Your task to perform on an android device: What is the recent news? Image 0: 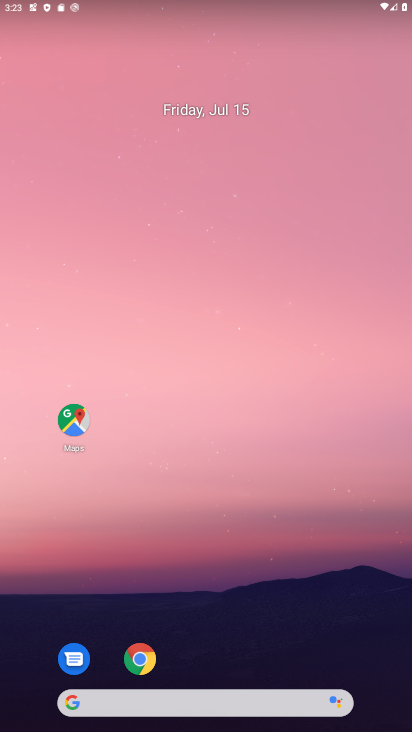
Step 0: click (237, 272)
Your task to perform on an android device: What is the recent news? Image 1: 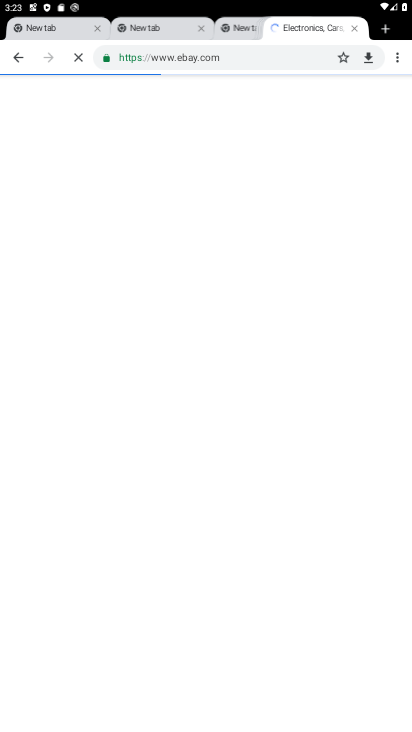
Step 1: press home button
Your task to perform on an android device: What is the recent news? Image 2: 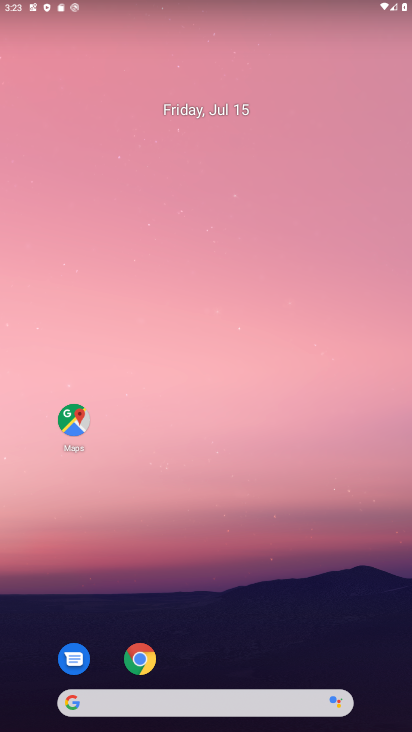
Step 2: drag from (211, 700) to (208, 348)
Your task to perform on an android device: What is the recent news? Image 3: 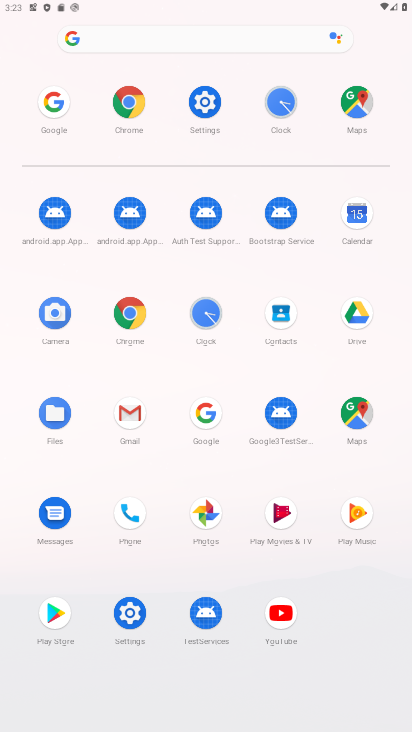
Step 3: click (55, 93)
Your task to perform on an android device: What is the recent news? Image 4: 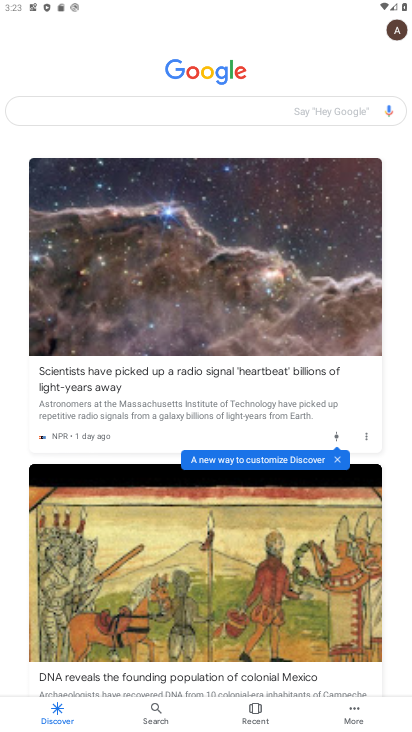
Step 4: click (117, 112)
Your task to perform on an android device: What is the recent news? Image 5: 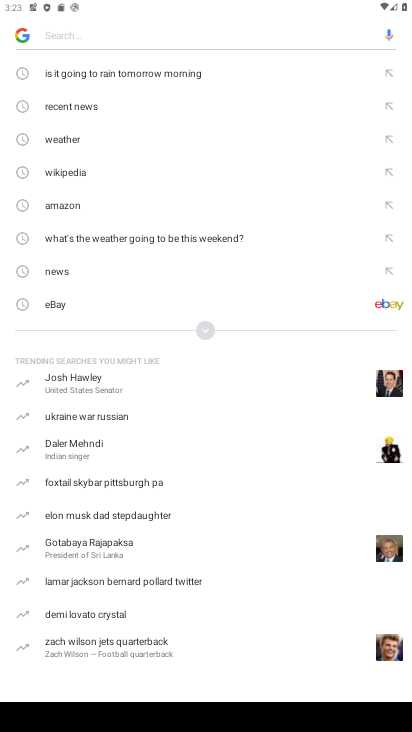
Step 5: click (56, 267)
Your task to perform on an android device: What is the recent news? Image 6: 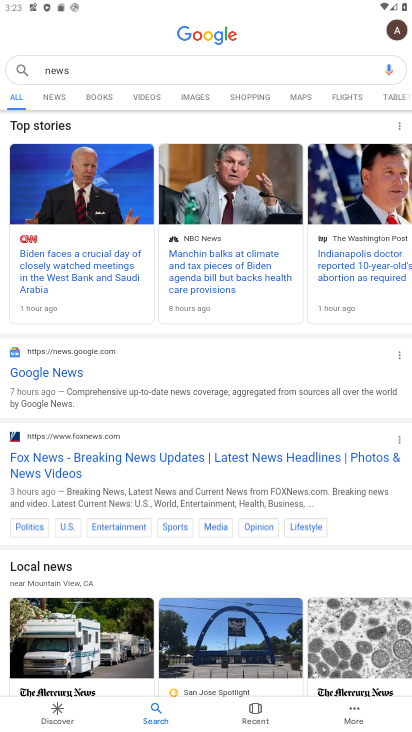
Step 6: click (122, 186)
Your task to perform on an android device: What is the recent news? Image 7: 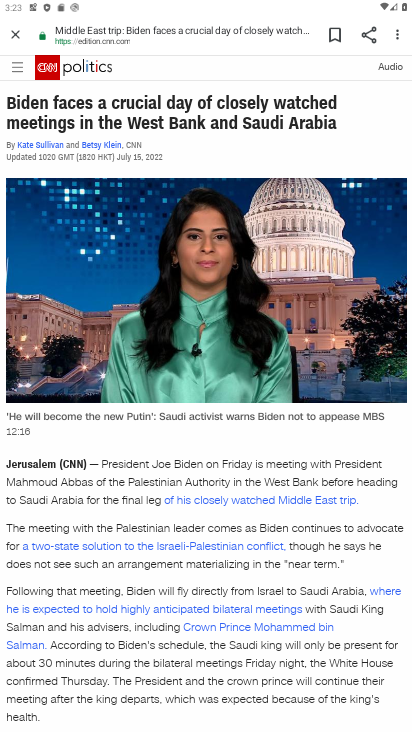
Step 7: task complete